Your task to perform on an android device: Open Google Maps Image 0: 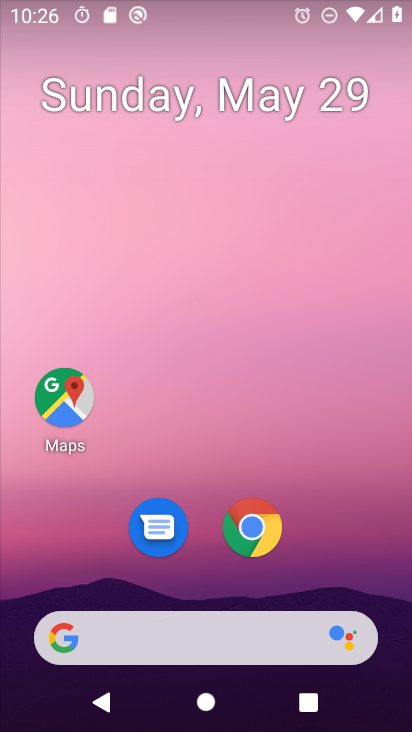
Step 0: drag from (404, 621) to (284, 103)
Your task to perform on an android device: Open Google Maps Image 1: 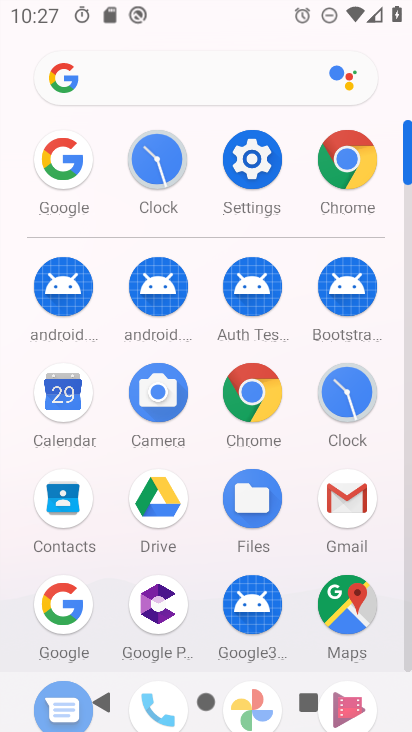
Step 1: click (354, 599)
Your task to perform on an android device: Open Google Maps Image 2: 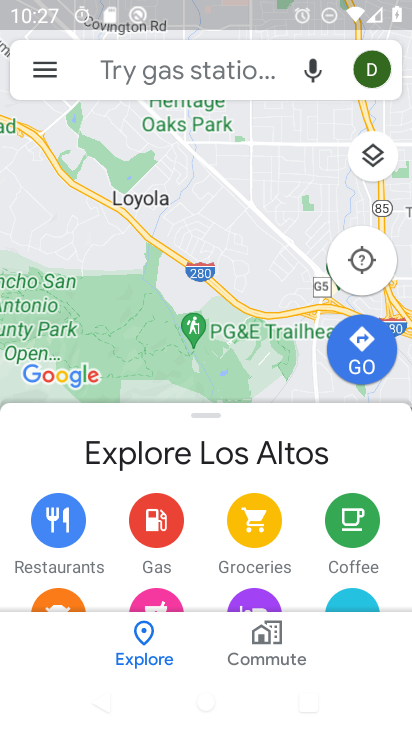
Step 2: task complete